Your task to perform on an android device: turn vacation reply on in the gmail app Image 0: 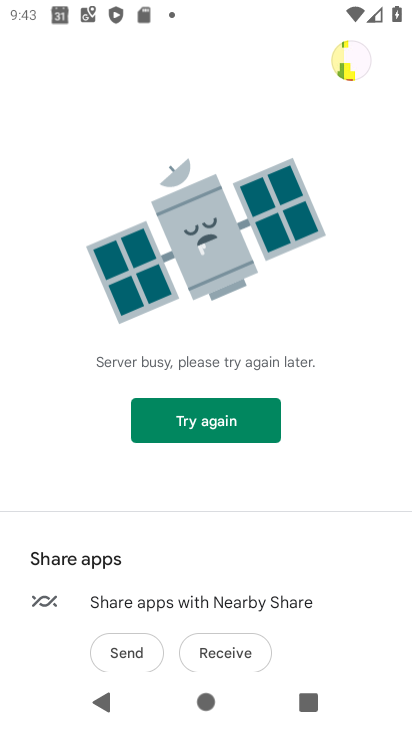
Step 0: press home button
Your task to perform on an android device: turn vacation reply on in the gmail app Image 1: 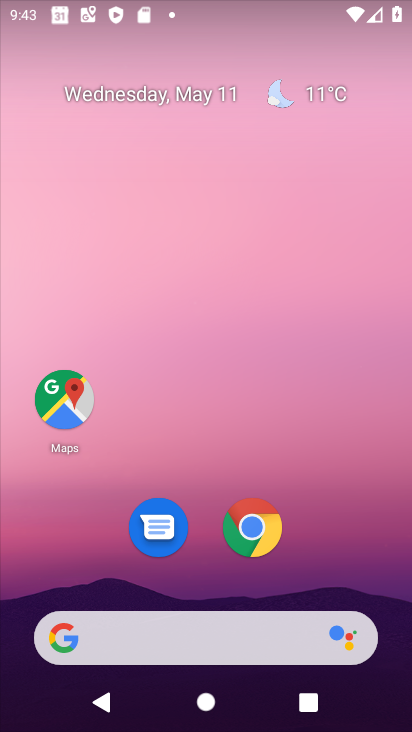
Step 1: drag from (344, 558) to (229, 1)
Your task to perform on an android device: turn vacation reply on in the gmail app Image 2: 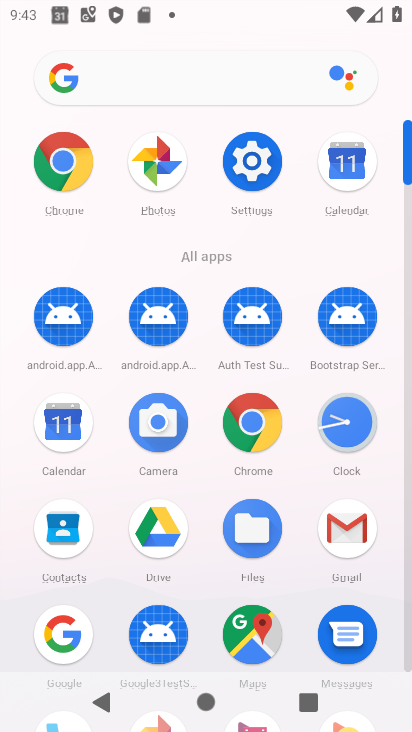
Step 2: click (358, 531)
Your task to perform on an android device: turn vacation reply on in the gmail app Image 3: 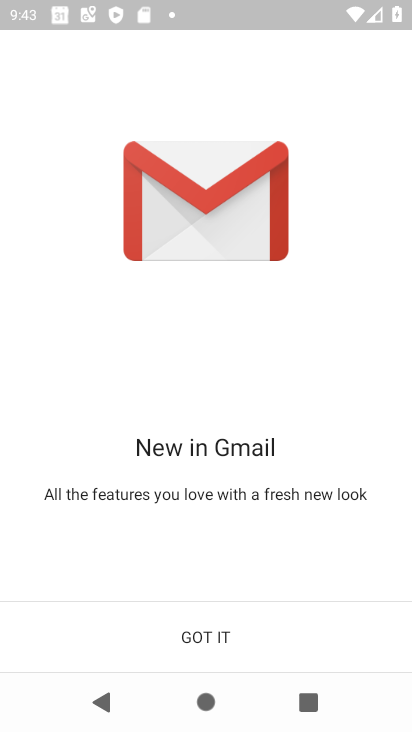
Step 3: click (226, 647)
Your task to perform on an android device: turn vacation reply on in the gmail app Image 4: 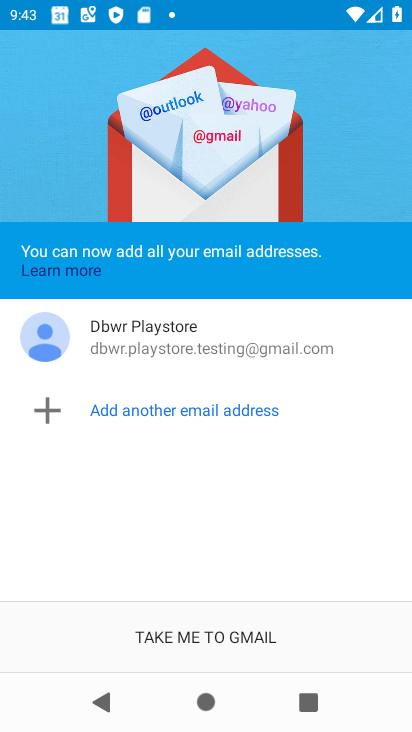
Step 4: click (171, 636)
Your task to perform on an android device: turn vacation reply on in the gmail app Image 5: 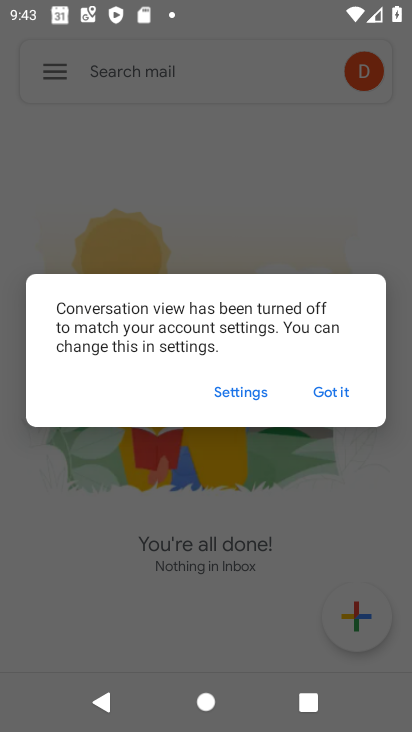
Step 5: click (34, 78)
Your task to perform on an android device: turn vacation reply on in the gmail app Image 6: 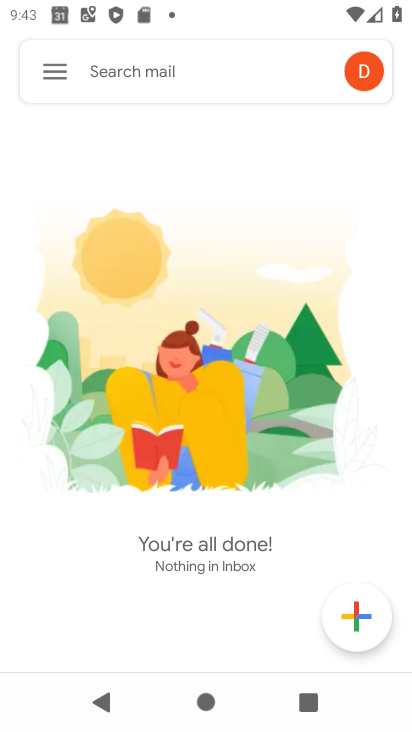
Step 6: click (42, 77)
Your task to perform on an android device: turn vacation reply on in the gmail app Image 7: 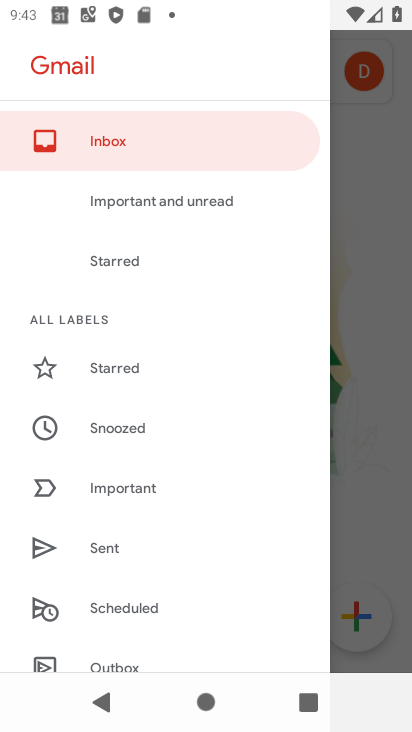
Step 7: drag from (127, 607) to (180, 253)
Your task to perform on an android device: turn vacation reply on in the gmail app Image 8: 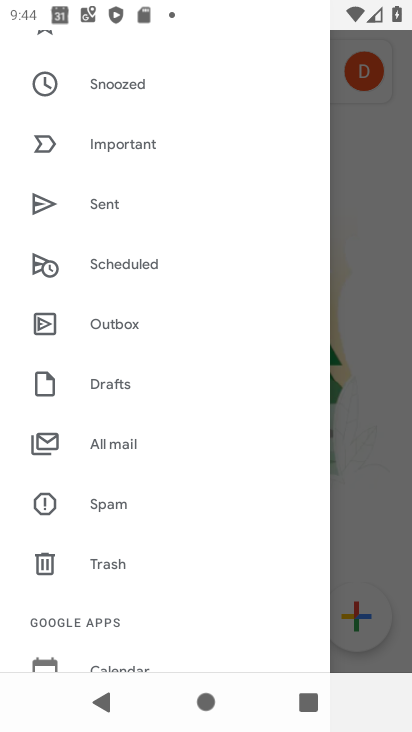
Step 8: drag from (175, 587) to (190, 182)
Your task to perform on an android device: turn vacation reply on in the gmail app Image 9: 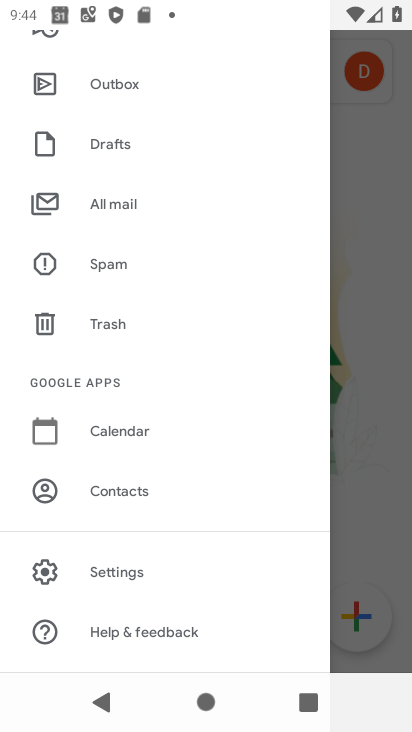
Step 9: click (106, 563)
Your task to perform on an android device: turn vacation reply on in the gmail app Image 10: 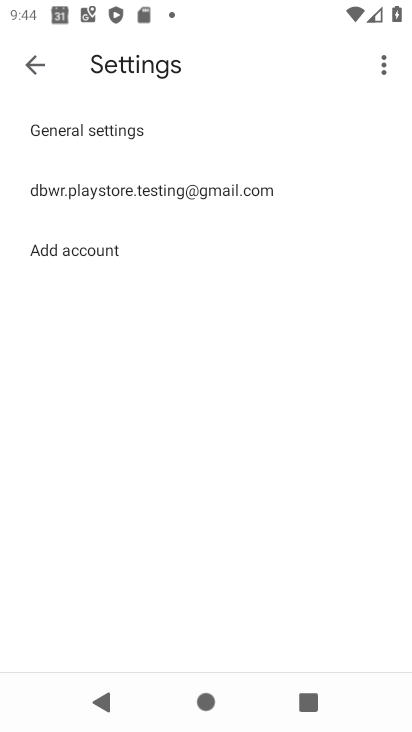
Step 10: click (55, 203)
Your task to perform on an android device: turn vacation reply on in the gmail app Image 11: 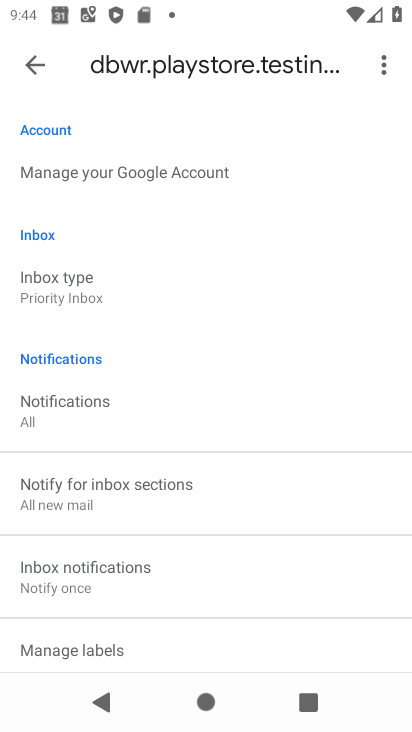
Step 11: drag from (118, 559) to (188, 160)
Your task to perform on an android device: turn vacation reply on in the gmail app Image 12: 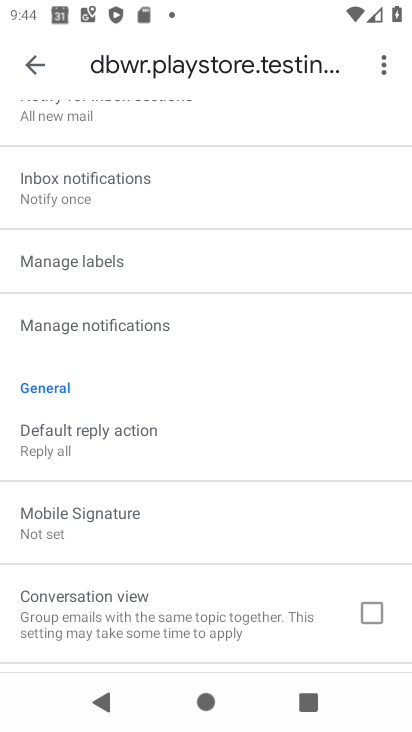
Step 12: drag from (167, 562) to (187, 109)
Your task to perform on an android device: turn vacation reply on in the gmail app Image 13: 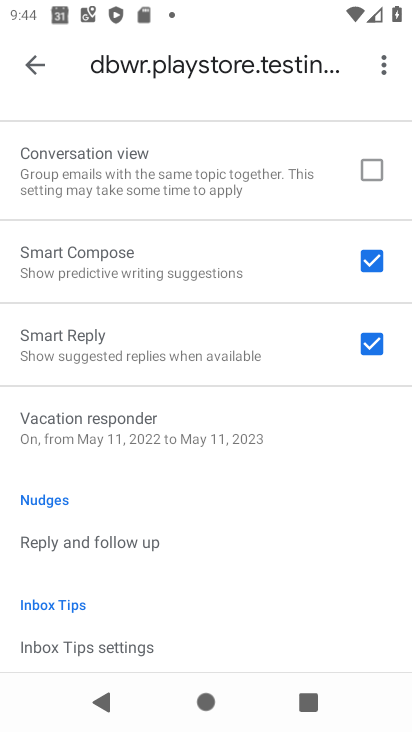
Step 13: drag from (162, 584) to (259, 172)
Your task to perform on an android device: turn vacation reply on in the gmail app Image 14: 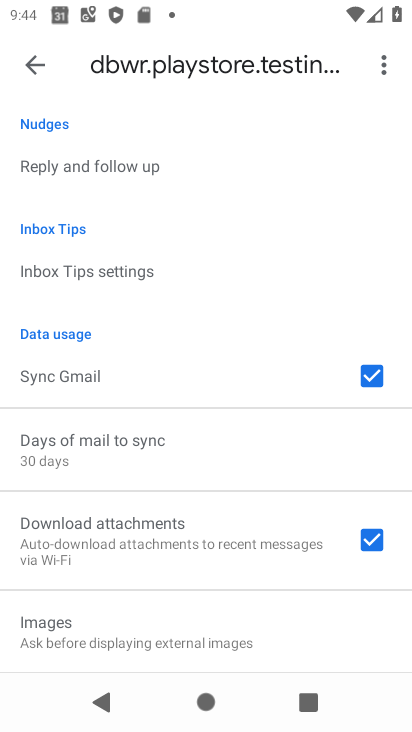
Step 14: drag from (150, 619) to (169, 163)
Your task to perform on an android device: turn vacation reply on in the gmail app Image 15: 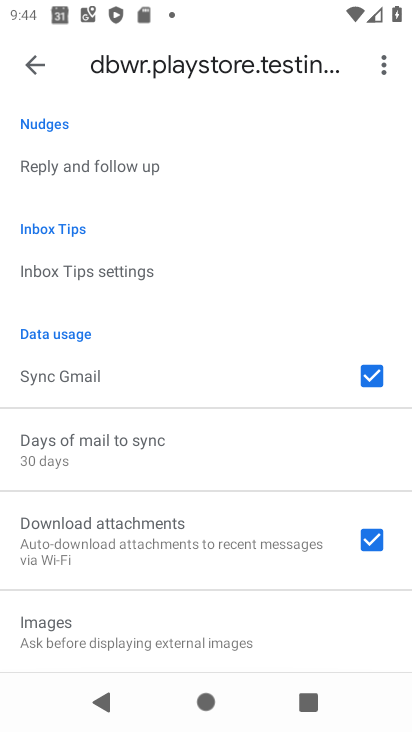
Step 15: drag from (169, 179) to (143, 566)
Your task to perform on an android device: turn vacation reply on in the gmail app Image 16: 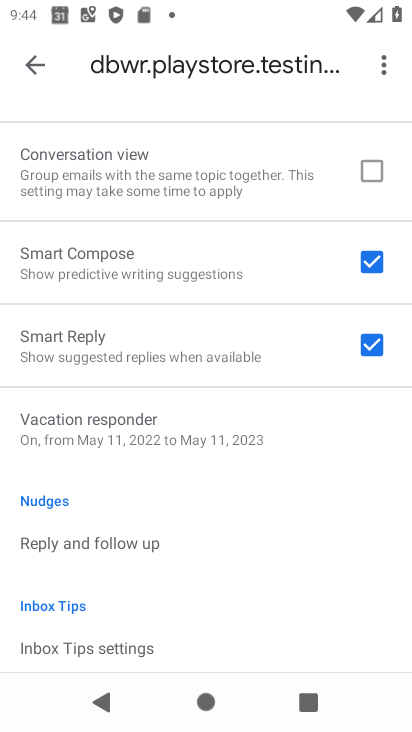
Step 16: click (118, 447)
Your task to perform on an android device: turn vacation reply on in the gmail app Image 17: 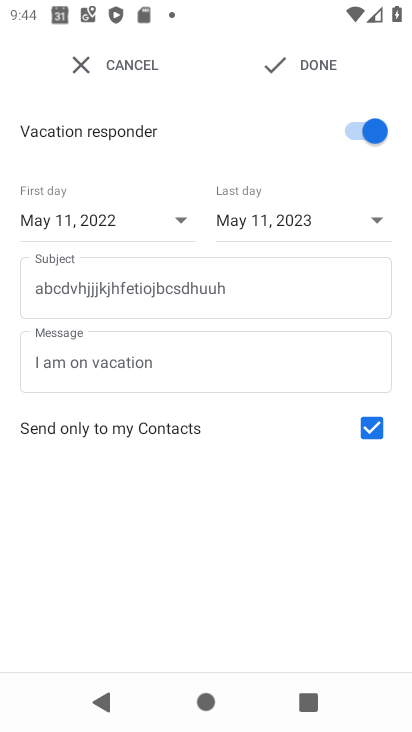
Step 17: task complete